Your task to perform on an android device: Open maps Image 0: 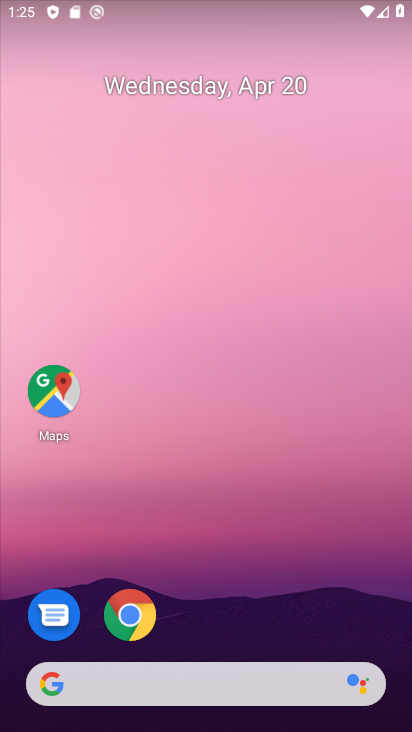
Step 0: drag from (294, 588) to (285, 0)
Your task to perform on an android device: Open maps Image 1: 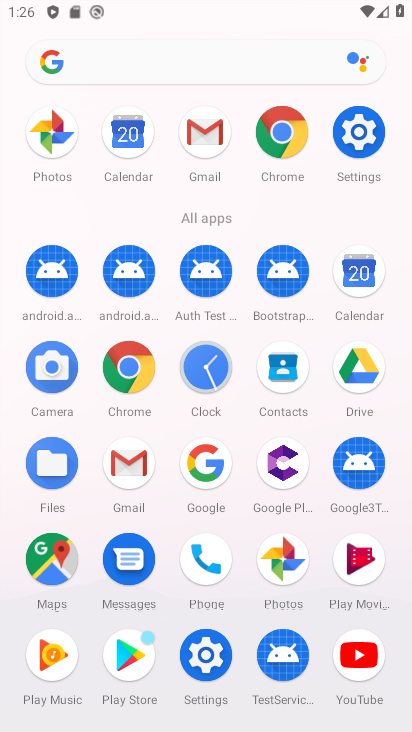
Step 1: click (39, 556)
Your task to perform on an android device: Open maps Image 2: 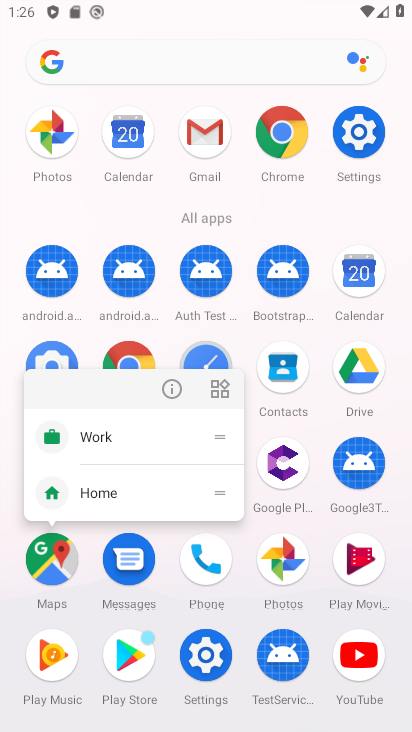
Step 2: click (43, 557)
Your task to perform on an android device: Open maps Image 3: 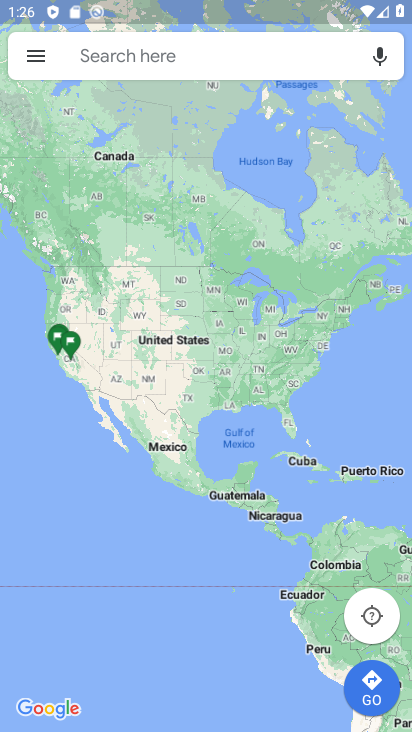
Step 3: task complete